Your task to perform on an android device: turn on data saver in the chrome app Image 0: 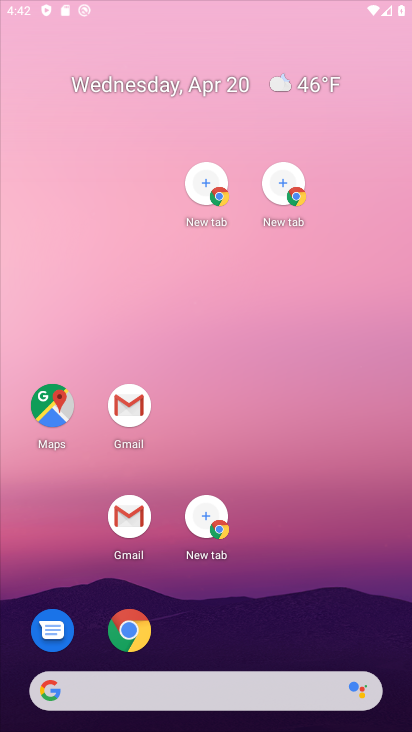
Step 0: click (149, 88)
Your task to perform on an android device: turn on data saver in the chrome app Image 1: 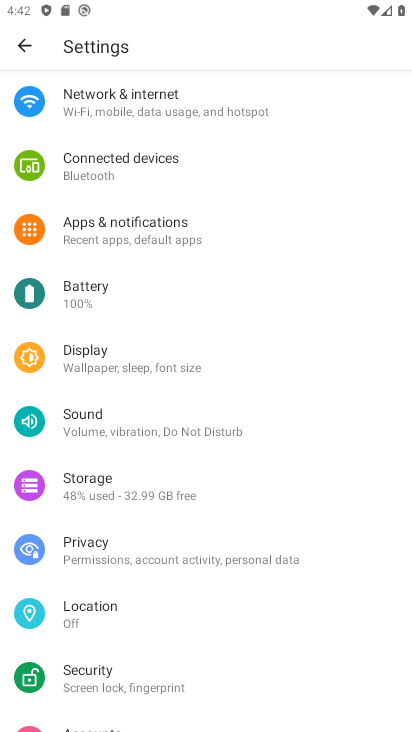
Step 1: press home button
Your task to perform on an android device: turn on data saver in the chrome app Image 2: 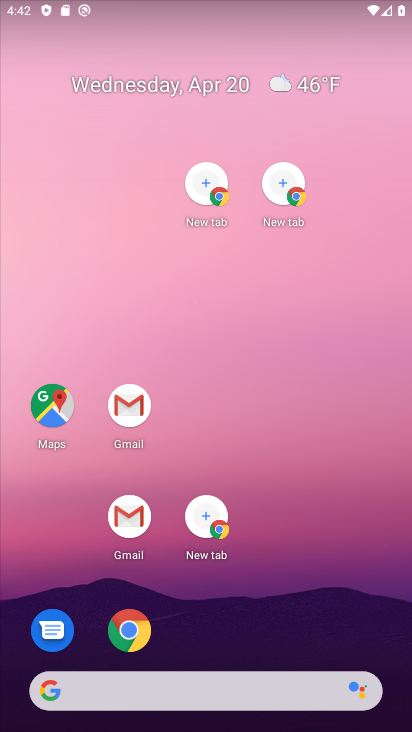
Step 2: drag from (289, 654) to (121, 138)
Your task to perform on an android device: turn on data saver in the chrome app Image 3: 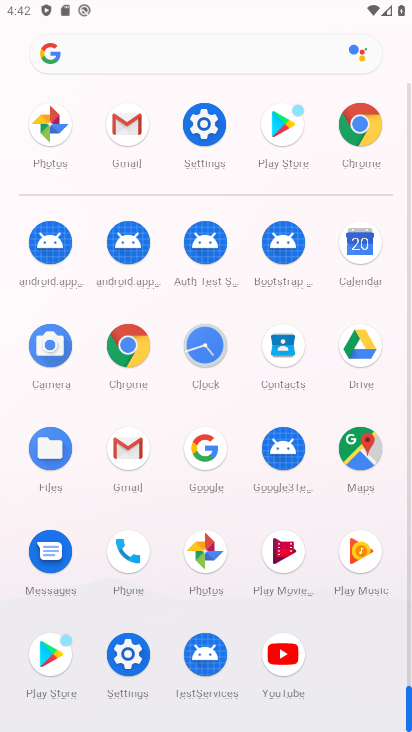
Step 3: click (362, 132)
Your task to perform on an android device: turn on data saver in the chrome app Image 4: 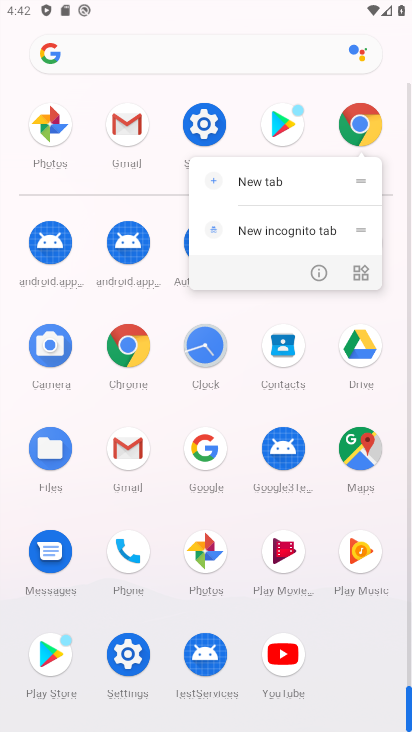
Step 4: click (362, 132)
Your task to perform on an android device: turn on data saver in the chrome app Image 5: 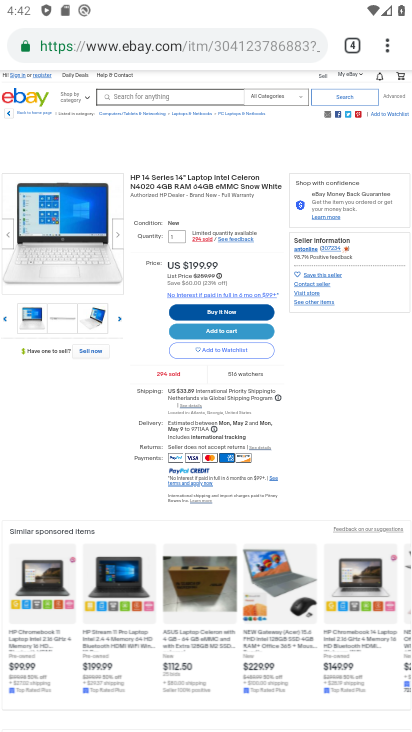
Step 5: click (379, 49)
Your task to perform on an android device: turn on data saver in the chrome app Image 6: 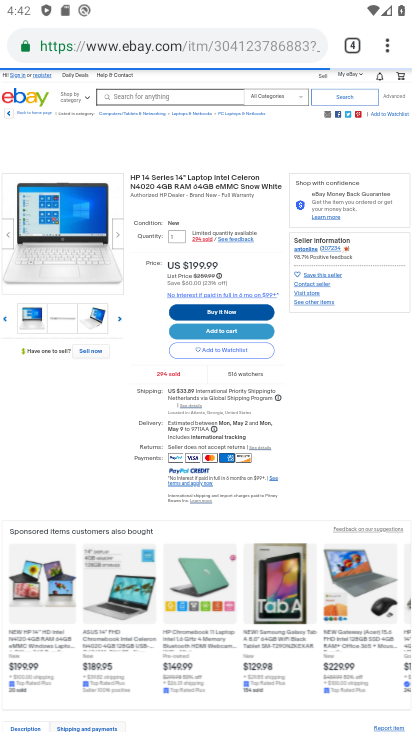
Step 6: click (379, 49)
Your task to perform on an android device: turn on data saver in the chrome app Image 7: 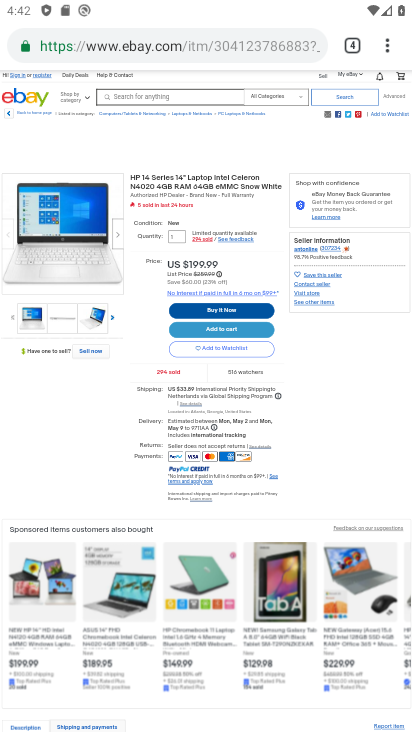
Step 7: drag from (384, 41) to (235, 586)
Your task to perform on an android device: turn on data saver in the chrome app Image 8: 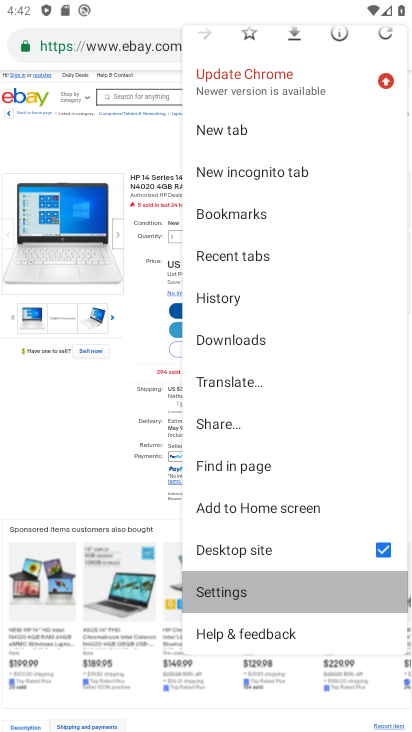
Step 8: click (233, 589)
Your task to perform on an android device: turn on data saver in the chrome app Image 9: 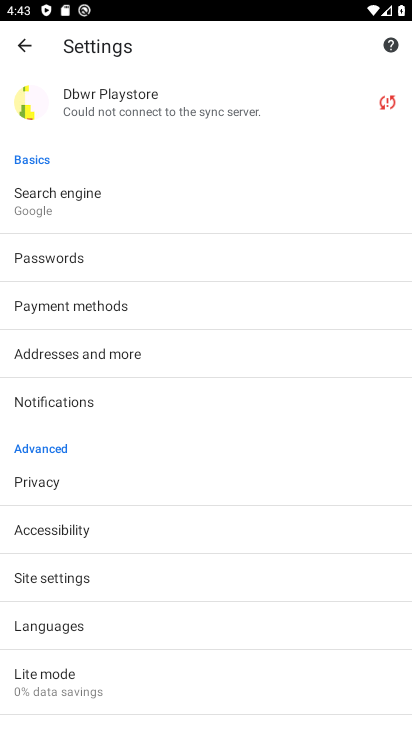
Step 9: click (38, 684)
Your task to perform on an android device: turn on data saver in the chrome app Image 10: 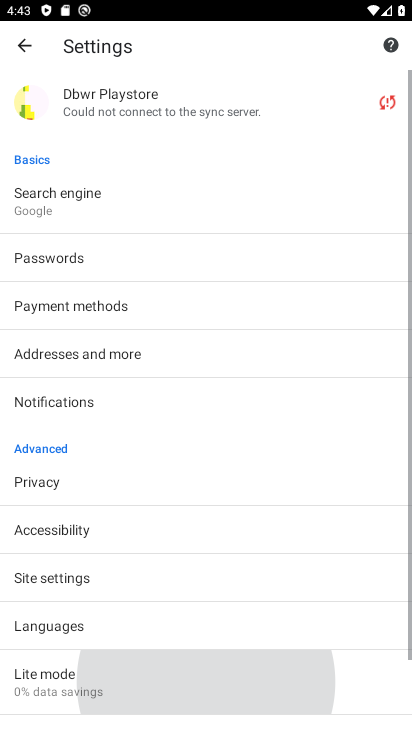
Step 10: click (38, 684)
Your task to perform on an android device: turn on data saver in the chrome app Image 11: 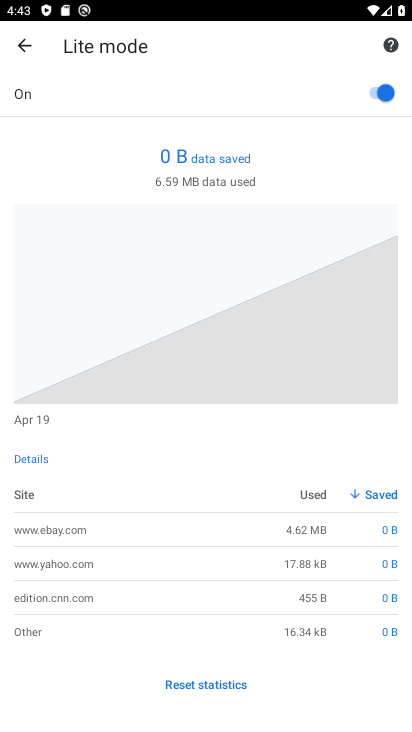
Step 11: click (37, 683)
Your task to perform on an android device: turn on data saver in the chrome app Image 12: 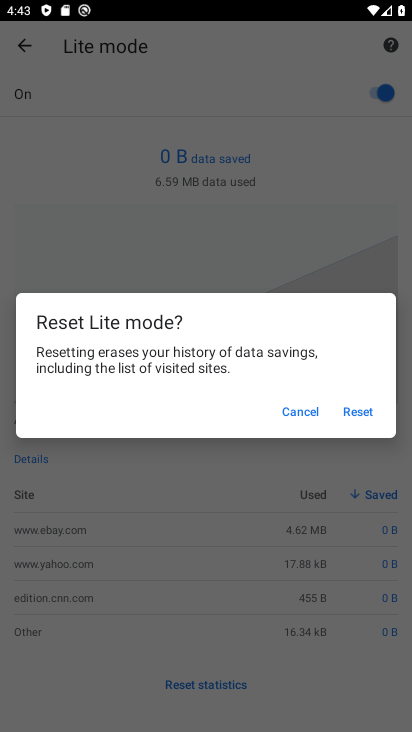
Step 12: click (305, 415)
Your task to perform on an android device: turn on data saver in the chrome app Image 13: 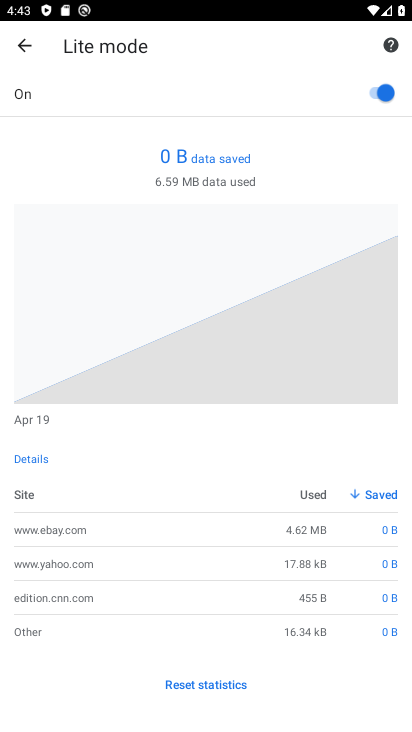
Step 13: task complete